Your task to perform on an android device: toggle data saver in the chrome app Image 0: 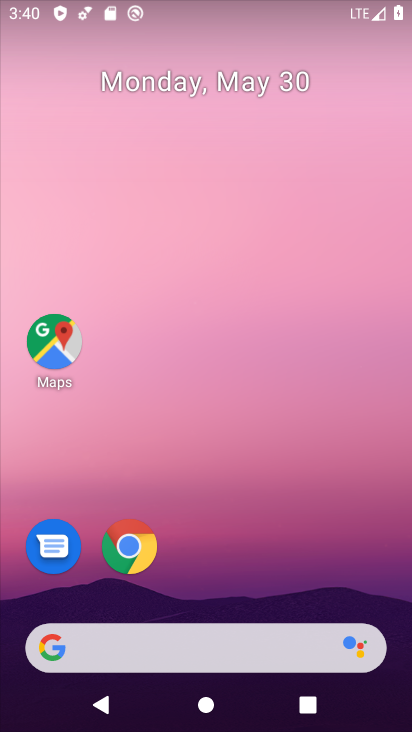
Step 0: click (135, 561)
Your task to perform on an android device: toggle data saver in the chrome app Image 1: 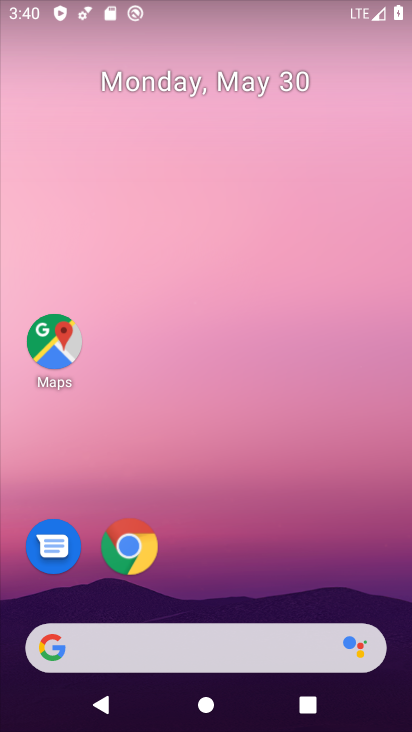
Step 1: click (135, 561)
Your task to perform on an android device: toggle data saver in the chrome app Image 2: 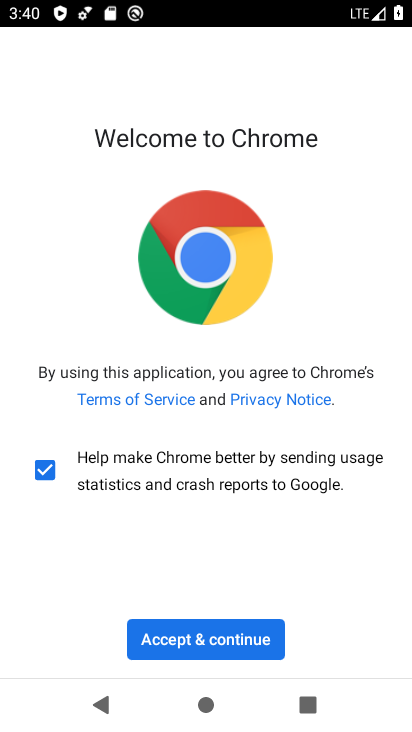
Step 2: click (172, 631)
Your task to perform on an android device: toggle data saver in the chrome app Image 3: 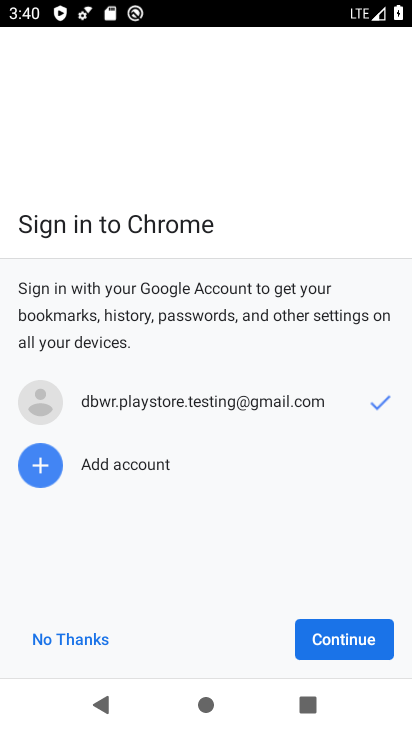
Step 3: click (56, 633)
Your task to perform on an android device: toggle data saver in the chrome app Image 4: 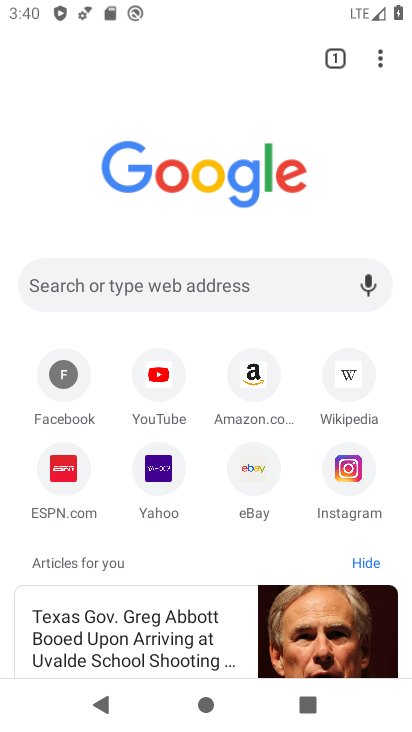
Step 4: click (382, 55)
Your task to perform on an android device: toggle data saver in the chrome app Image 5: 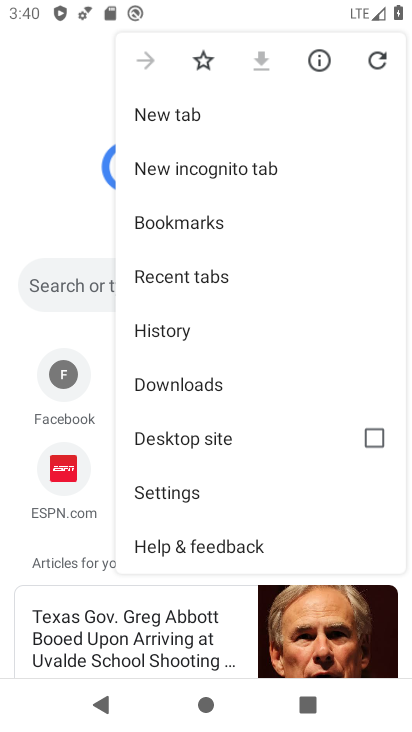
Step 5: click (171, 497)
Your task to perform on an android device: toggle data saver in the chrome app Image 6: 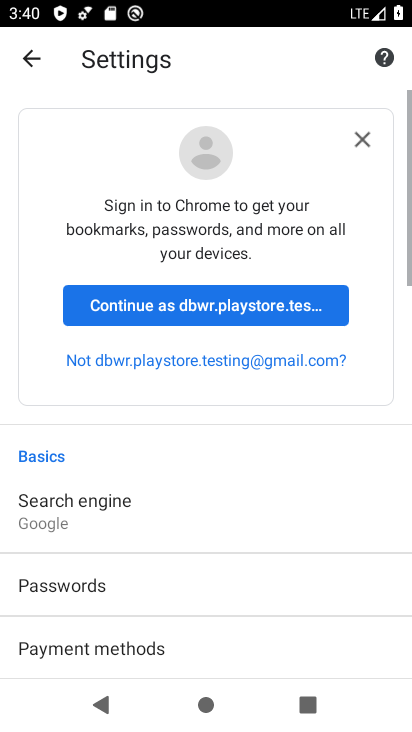
Step 6: drag from (195, 616) to (179, 124)
Your task to perform on an android device: toggle data saver in the chrome app Image 7: 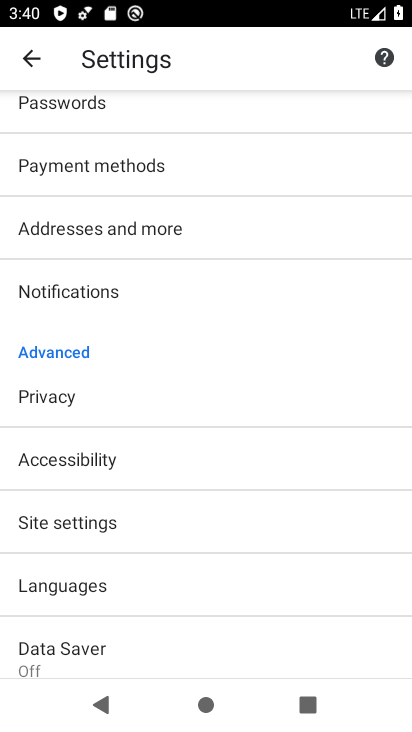
Step 7: click (102, 655)
Your task to perform on an android device: toggle data saver in the chrome app Image 8: 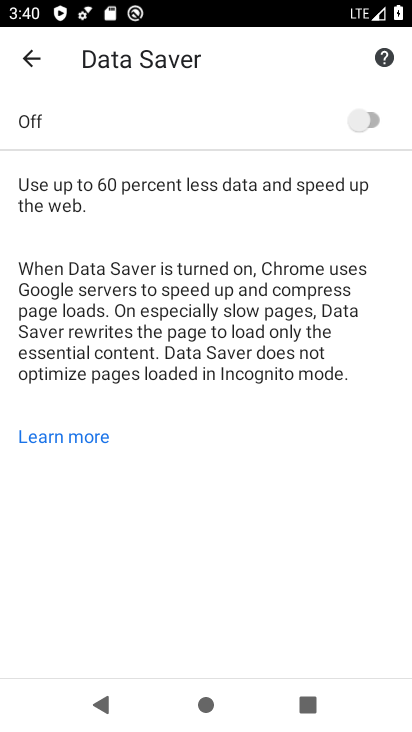
Step 8: click (371, 116)
Your task to perform on an android device: toggle data saver in the chrome app Image 9: 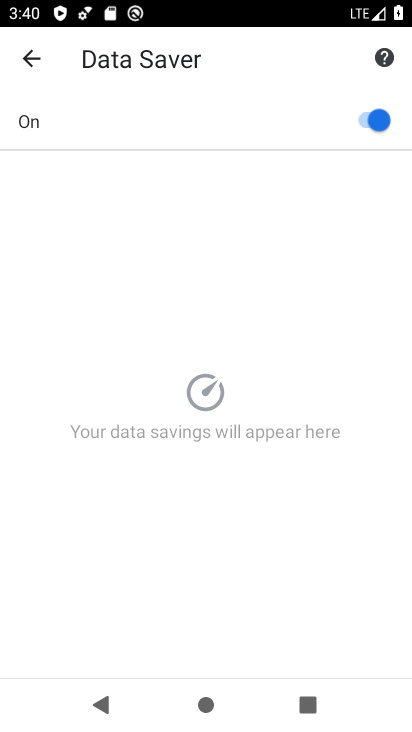
Step 9: task complete